Your task to perform on an android device: check google app version Image 0: 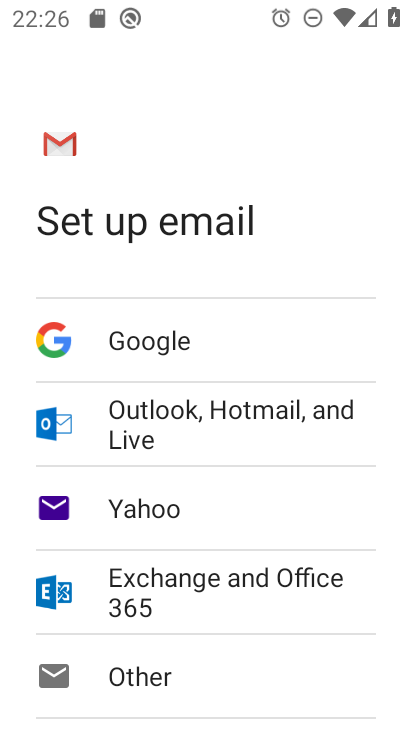
Step 0: drag from (218, 628) to (376, 8)
Your task to perform on an android device: check google app version Image 1: 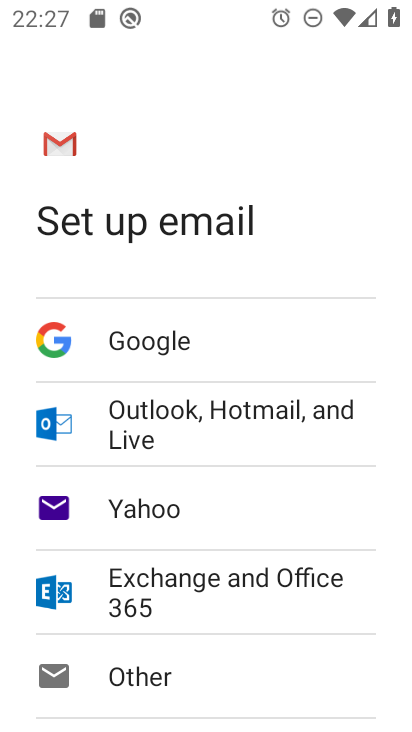
Step 1: drag from (213, 655) to (324, 257)
Your task to perform on an android device: check google app version Image 2: 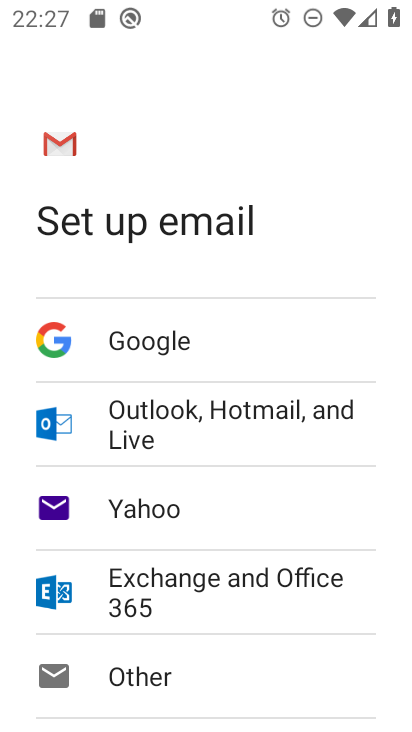
Step 2: press back button
Your task to perform on an android device: check google app version Image 3: 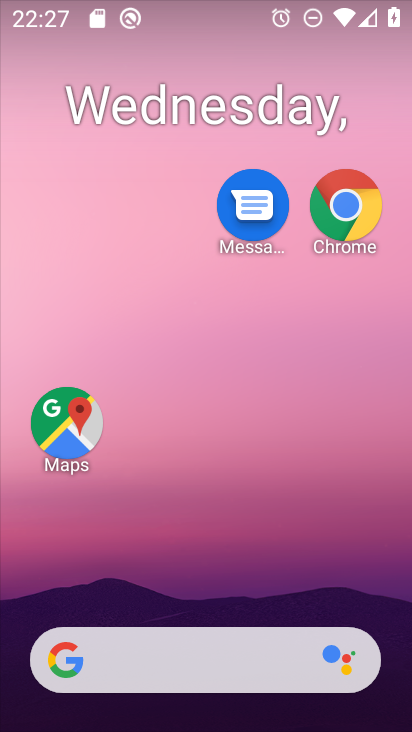
Step 3: press home button
Your task to perform on an android device: check google app version Image 4: 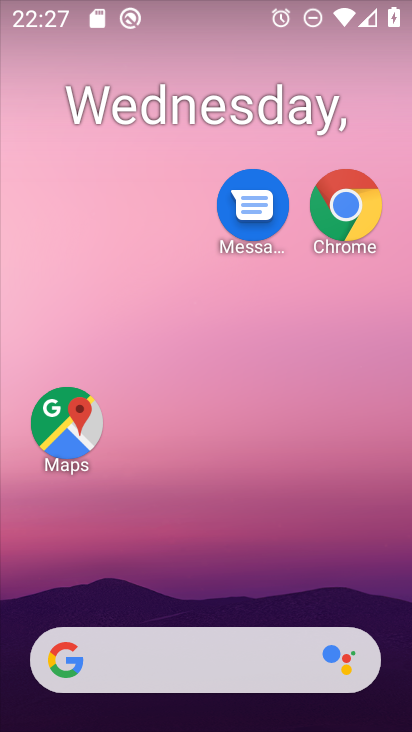
Step 4: drag from (256, 564) to (266, 19)
Your task to perform on an android device: check google app version Image 5: 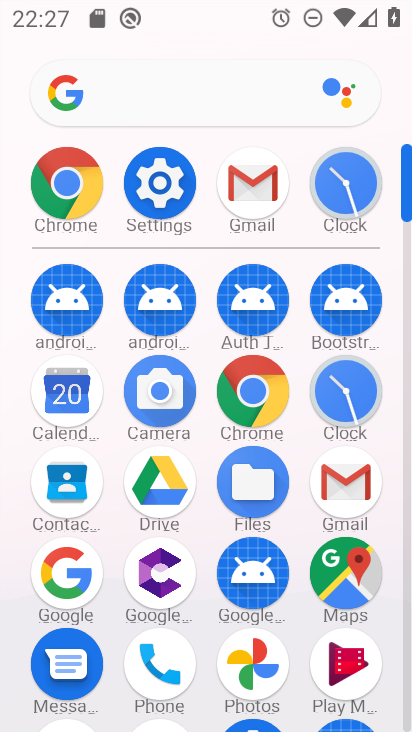
Step 5: click (64, 583)
Your task to perform on an android device: check google app version Image 6: 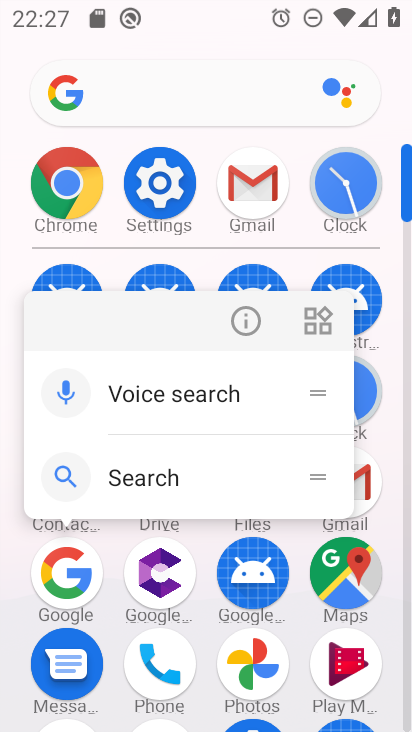
Step 6: click (243, 323)
Your task to perform on an android device: check google app version Image 7: 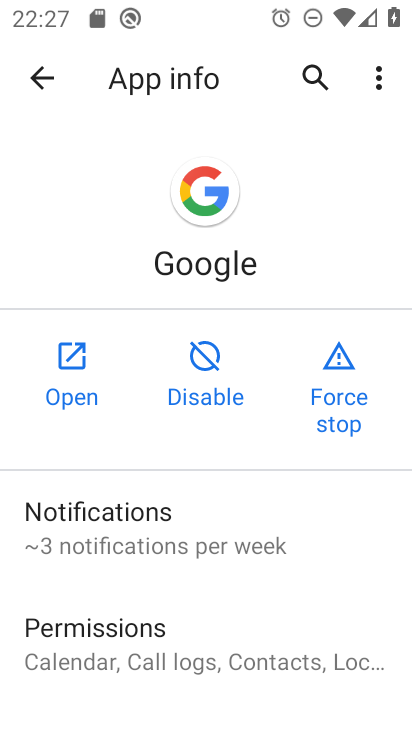
Step 7: click (72, 365)
Your task to perform on an android device: check google app version Image 8: 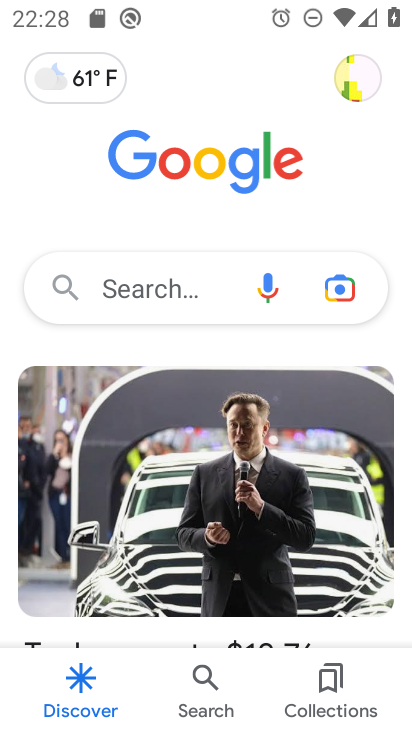
Step 8: click (366, 67)
Your task to perform on an android device: check google app version Image 9: 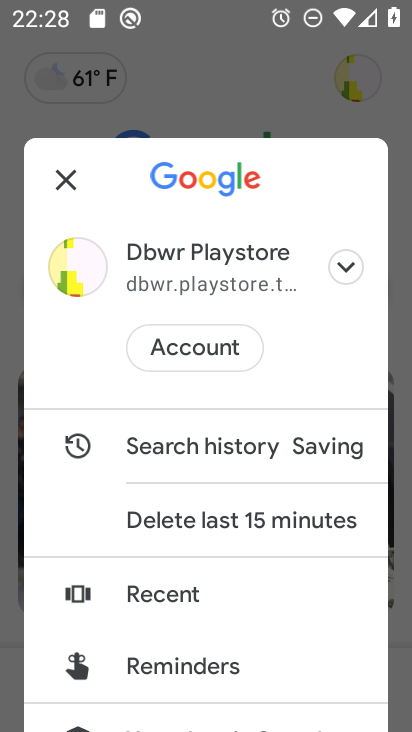
Step 9: drag from (237, 604) to (218, 342)
Your task to perform on an android device: check google app version Image 10: 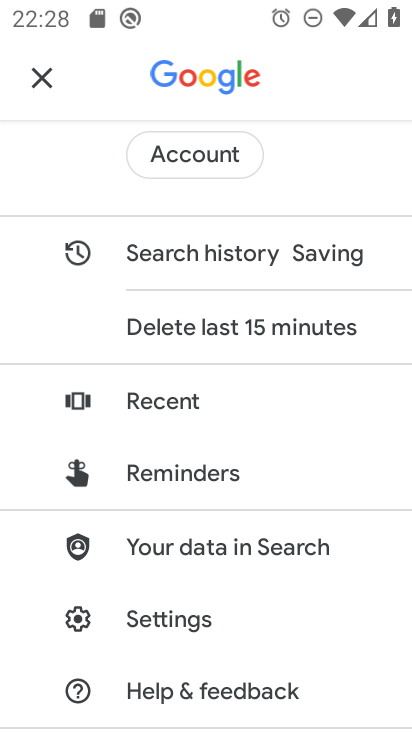
Step 10: click (215, 600)
Your task to perform on an android device: check google app version Image 11: 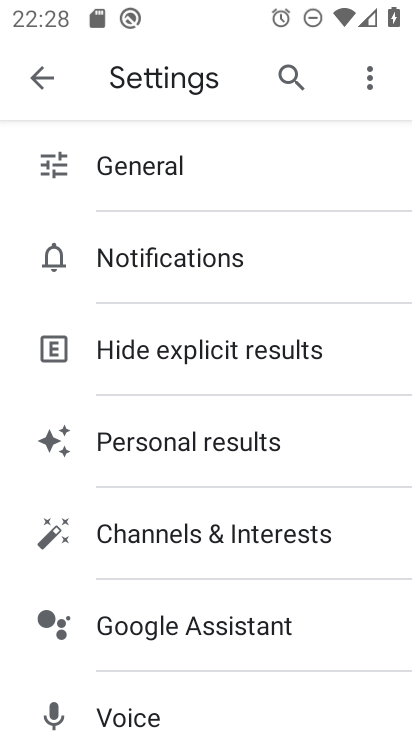
Step 11: drag from (203, 575) to (178, 286)
Your task to perform on an android device: check google app version Image 12: 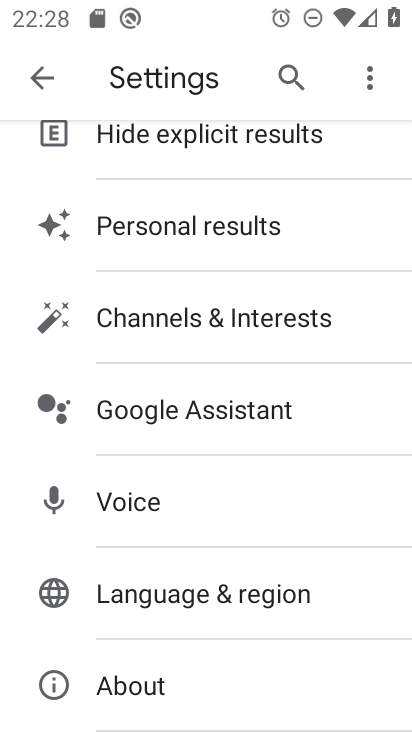
Step 12: click (158, 693)
Your task to perform on an android device: check google app version Image 13: 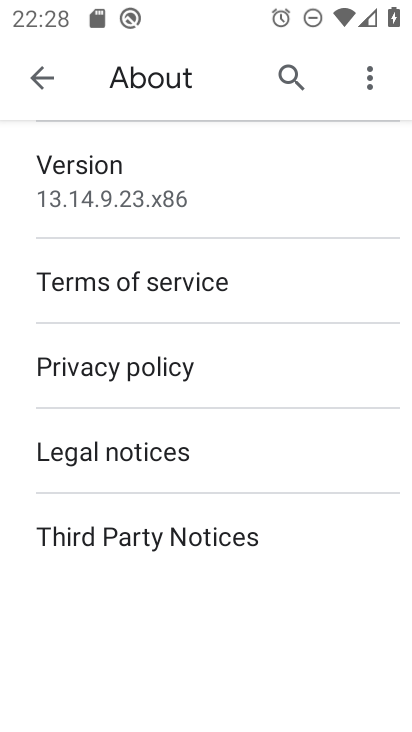
Step 13: click (99, 190)
Your task to perform on an android device: check google app version Image 14: 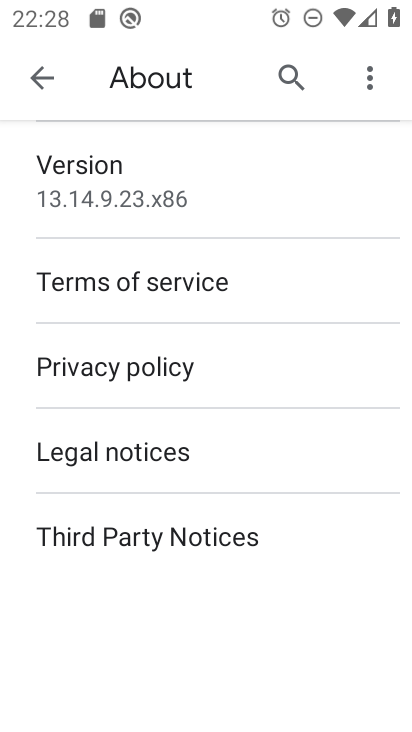
Step 14: task complete